Your task to perform on an android device: Open Chrome and go to the settings page Image 0: 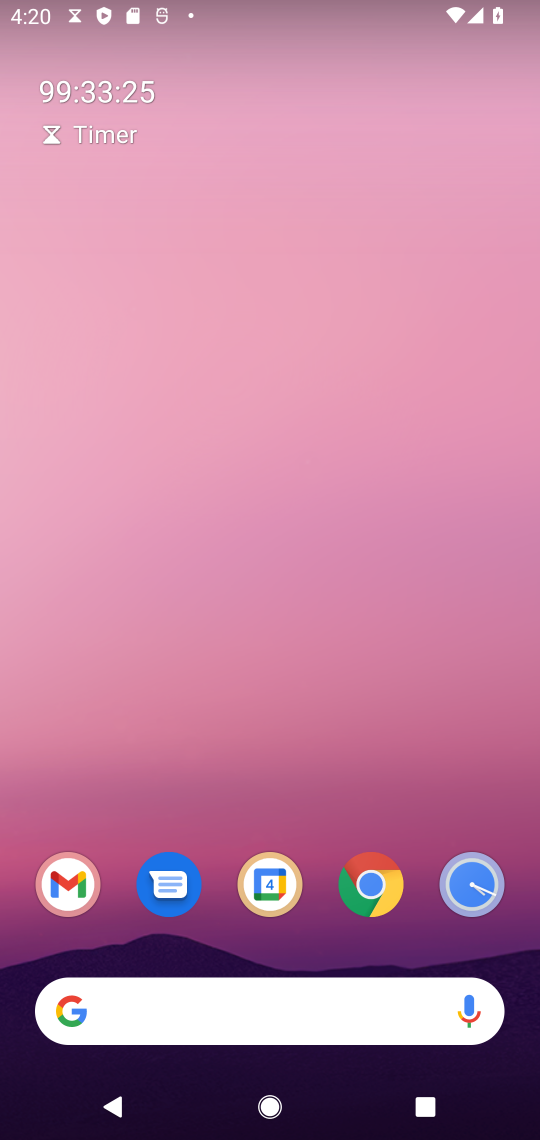
Step 0: drag from (304, 1011) to (343, 295)
Your task to perform on an android device: Open Chrome and go to the settings page Image 1: 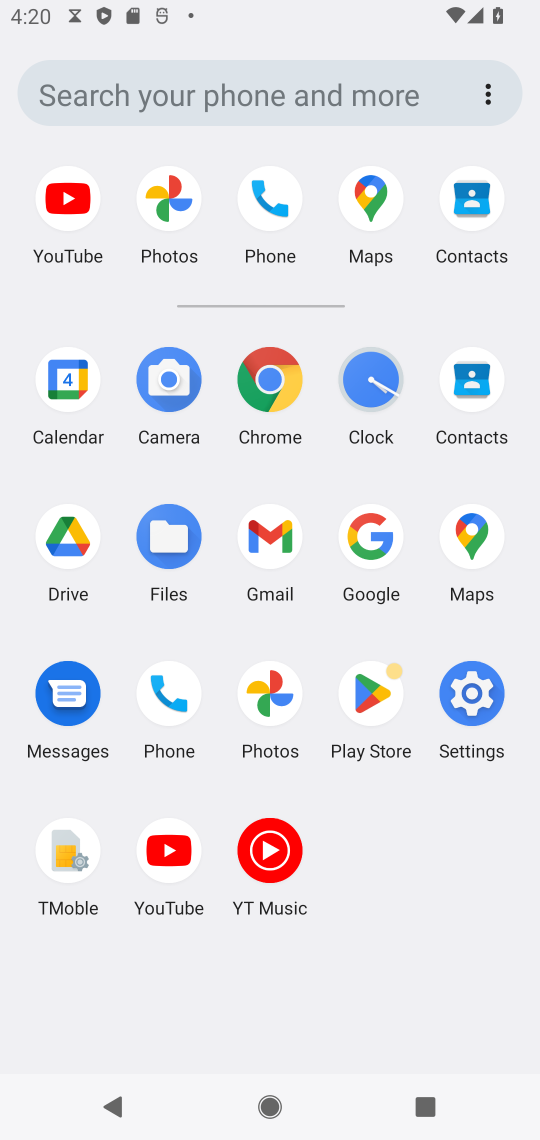
Step 1: click (272, 384)
Your task to perform on an android device: Open Chrome and go to the settings page Image 2: 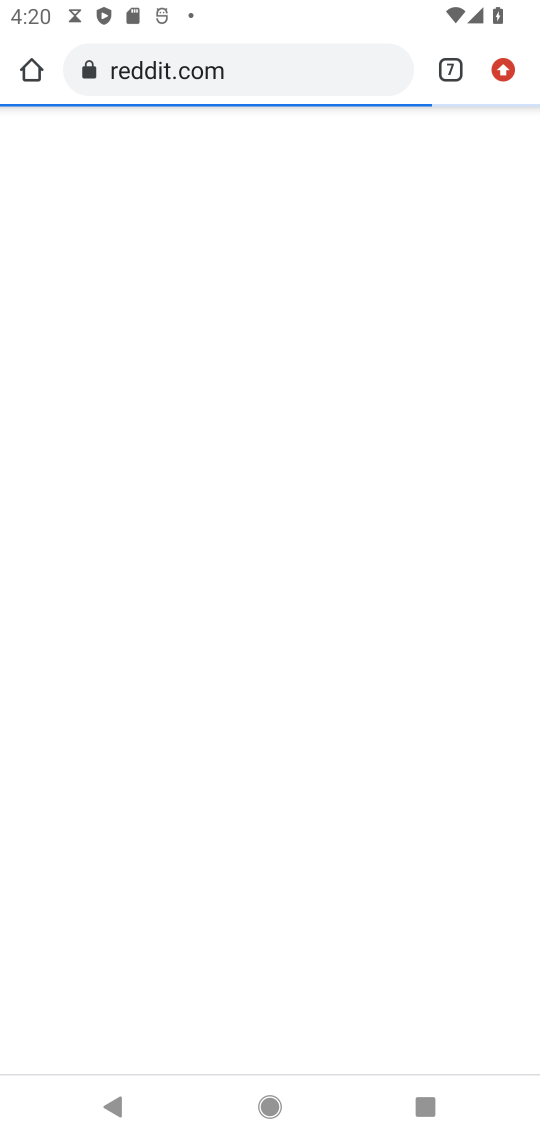
Step 2: click (504, 69)
Your task to perform on an android device: Open Chrome and go to the settings page Image 3: 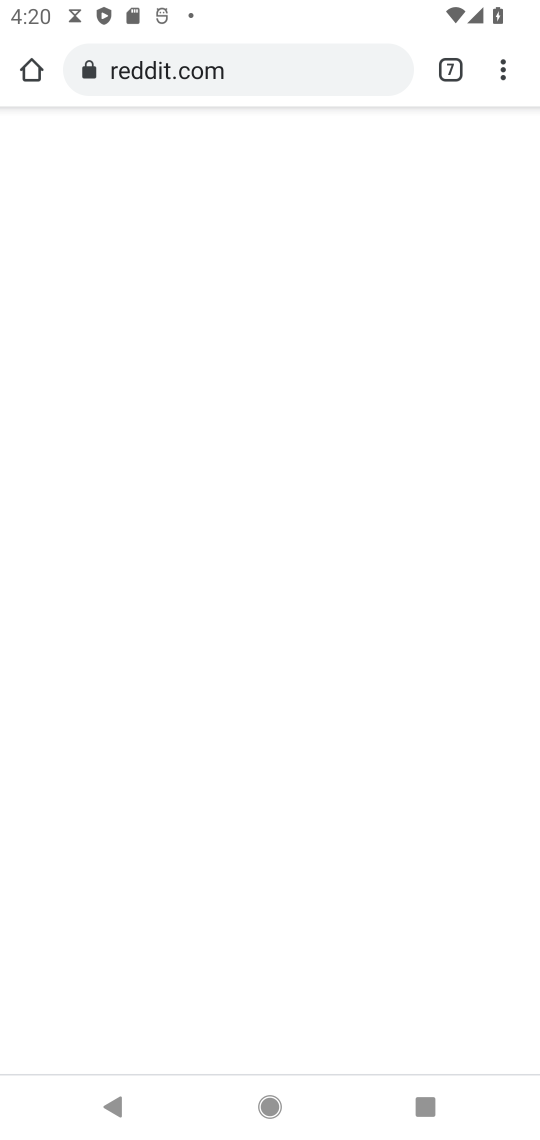
Step 3: click (503, 68)
Your task to perform on an android device: Open Chrome and go to the settings page Image 4: 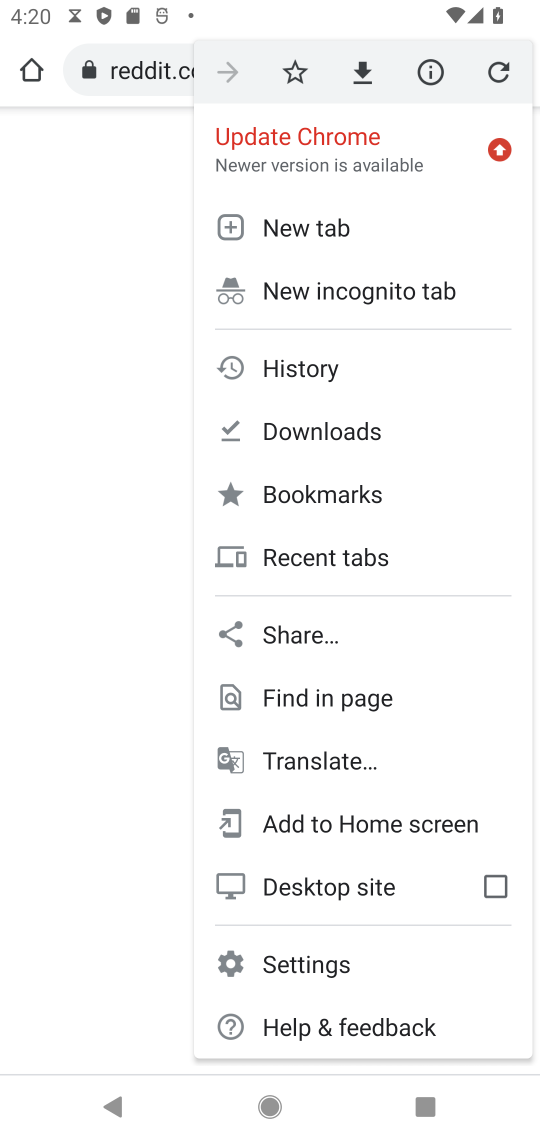
Step 4: click (280, 959)
Your task to perform on an android device: Open Chrome and go to the settings page Image 5: 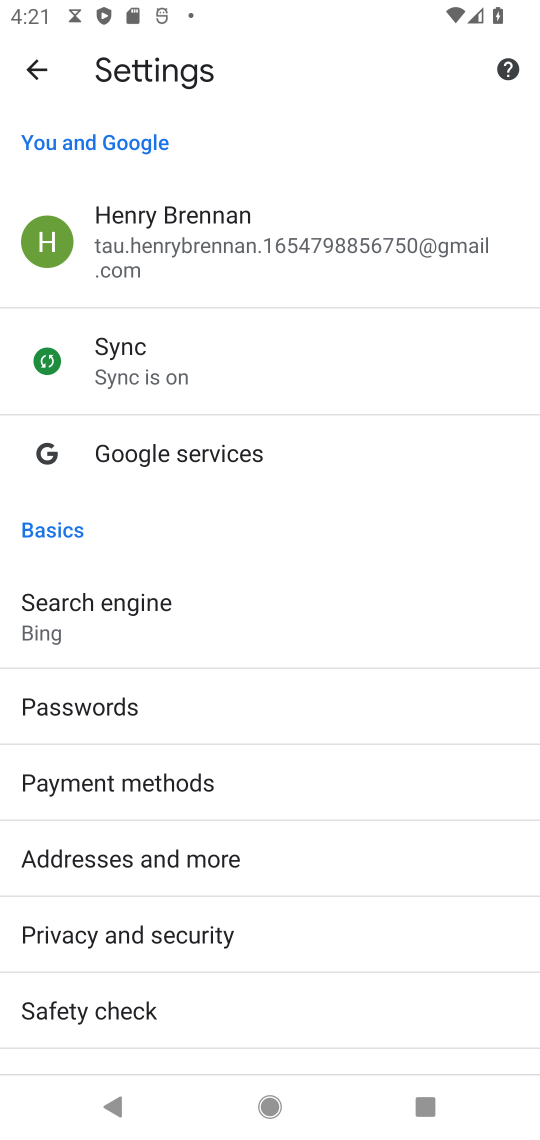
Step 5: task complete